Your task to perform on an android device: Open Google Maps and go to "Timeline" Image 0: 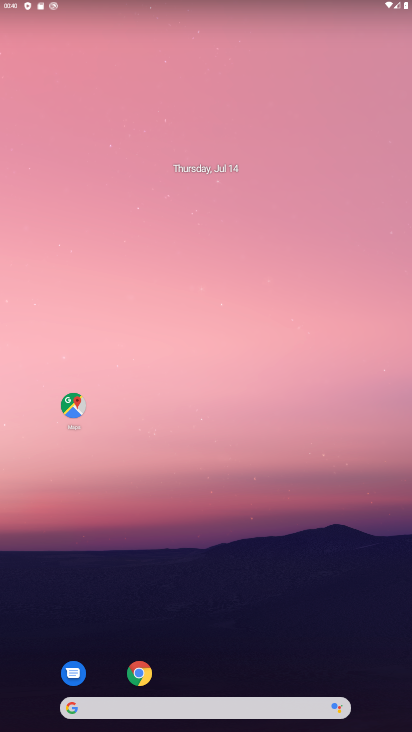
Step 0: drag from (240, 682) to (190, 325)
Your task to perform on an android device: Open Google Maps and go to "Timeline" Image 1: 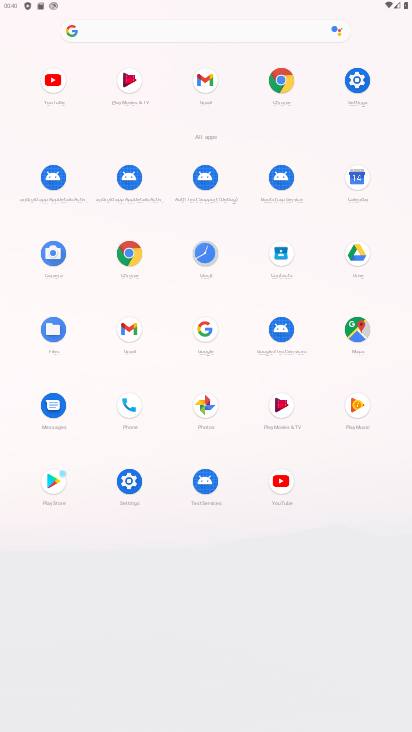
Step 1: click (129, 328)
Your task to perform on an android device: Open Google Maps and go to "Timeline" Image 2: 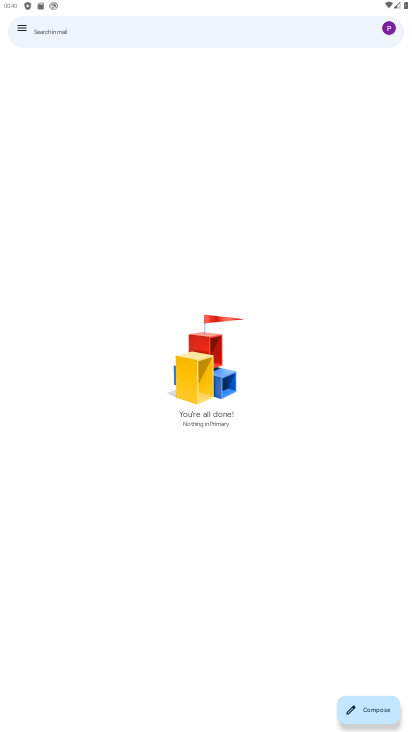
Step 2: click (28, 24)
Your task to perform on an android device: Open Google Maps and go to "Timeline" Image 3: 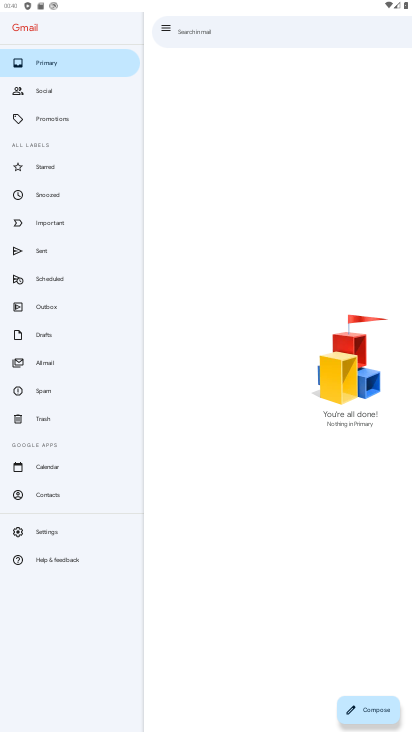
Step 3: click (52, 520)
Your task to perform on an android device: Open Google Maps and go to "Timeline" Image 4: 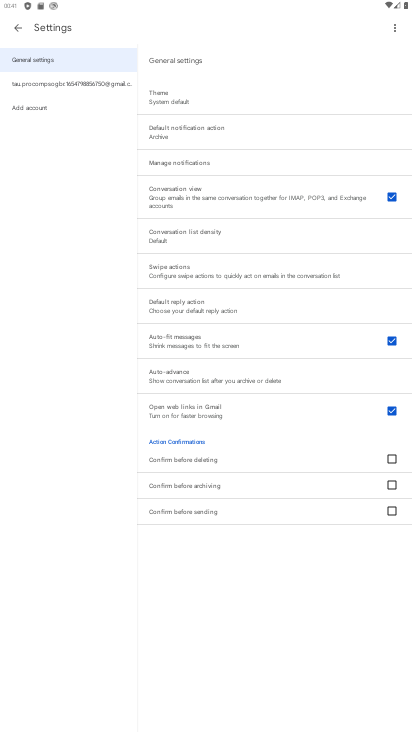
Step 4: task complete